Your task to perform on an android device: clear history in the chrome app Image 0: 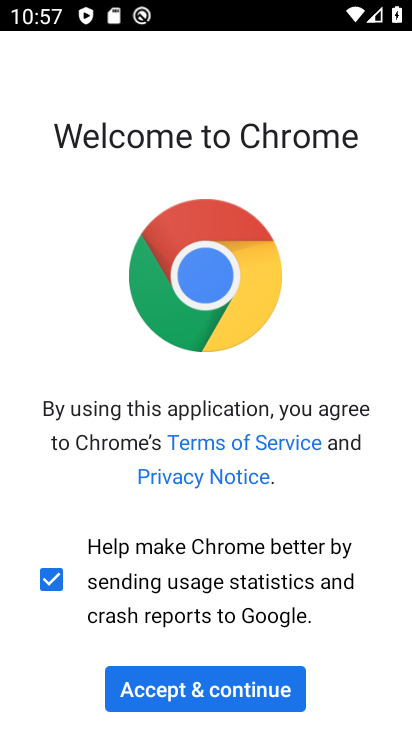
Step 0: click (281, 686)
Your task to perform on an android device: clear history in the chrome app Image 1: 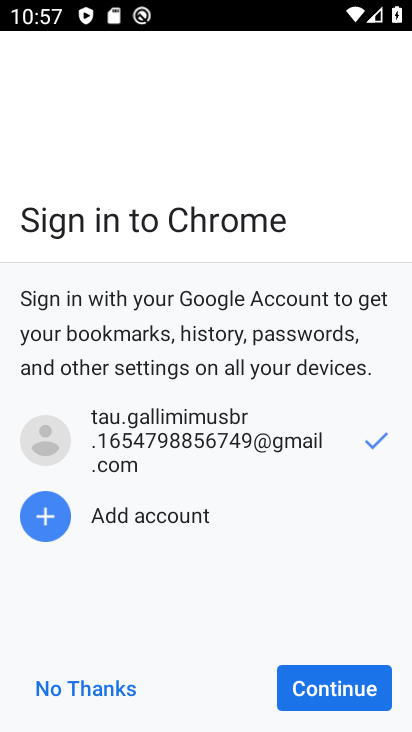
Step 1: click (313, 692)
Your task to perform on an android device: clear history in the chrome app Image 2: 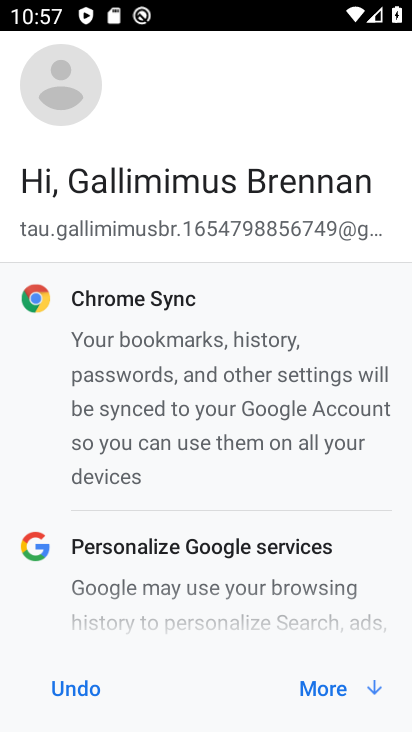
Step 2: click (316, 688)
Your task to perform on an android device: clear history in the chrome app Image 3: 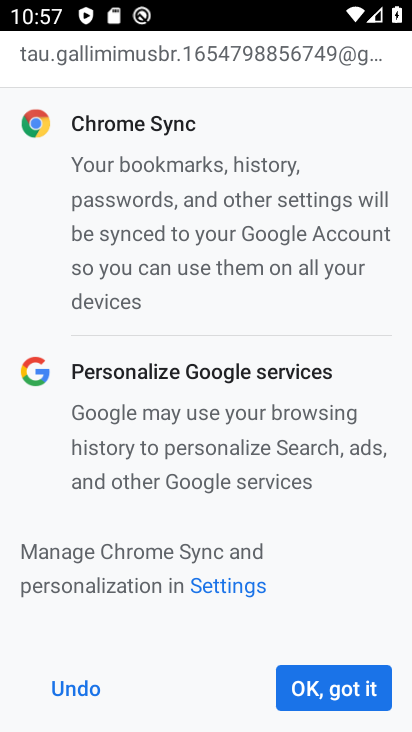
Step 3: click (319, 688)
Your task to perform on an android device: clear history in the chrome app Image 4: 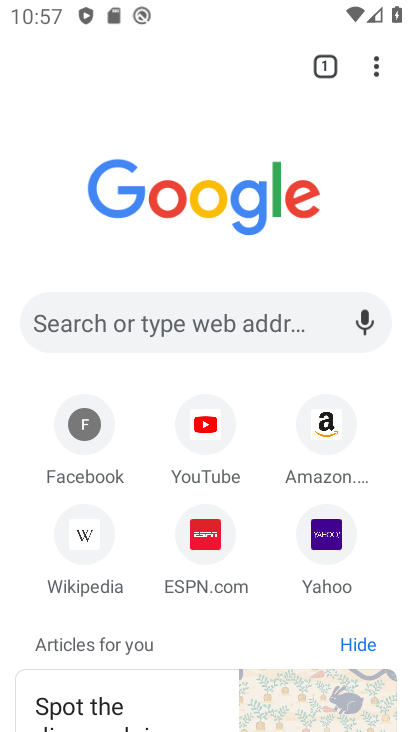
Step 4: click (376, 72)
Your task to perform on an android device: clear history in the chrome app Image 5: 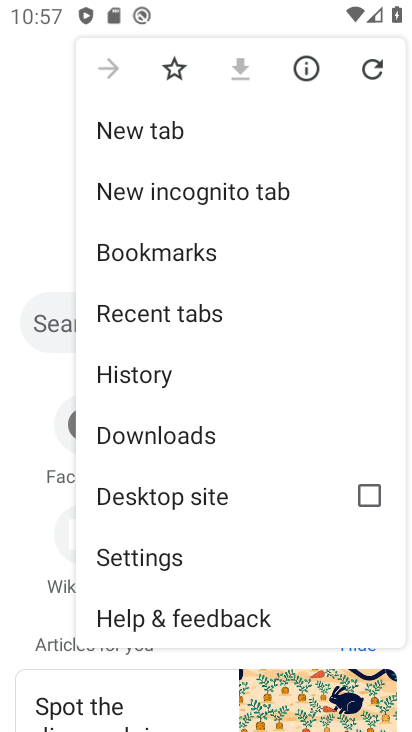
Step 5: click (161, 378)
Your task to perform on an android device: clear history in the chrome app Image 6: 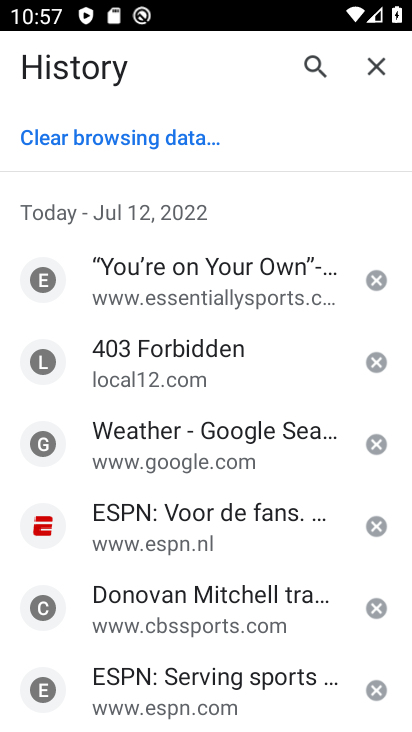
Step 6: click (141, 133)
Your task to perform on an android device: clear history in the chrome app Image 7: 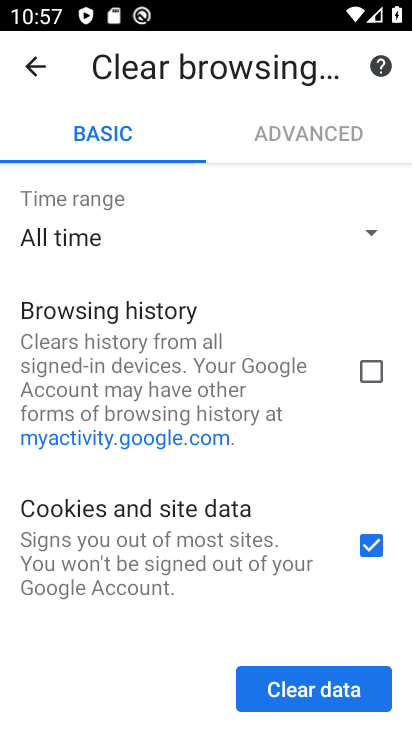
Step 7: click (366, 367)
Your task to perform on an android device: clear history in the chrome app Image 8: 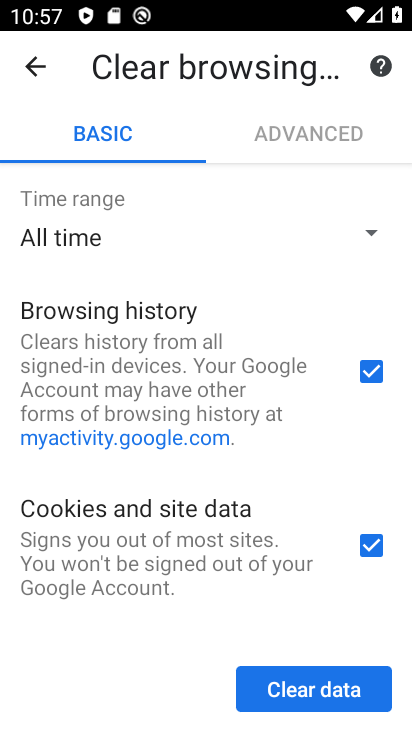
Step 8: drag from (318, 469) to (321, 225)
Your task to perform on an android device: clear history in the chrome app Image 9: 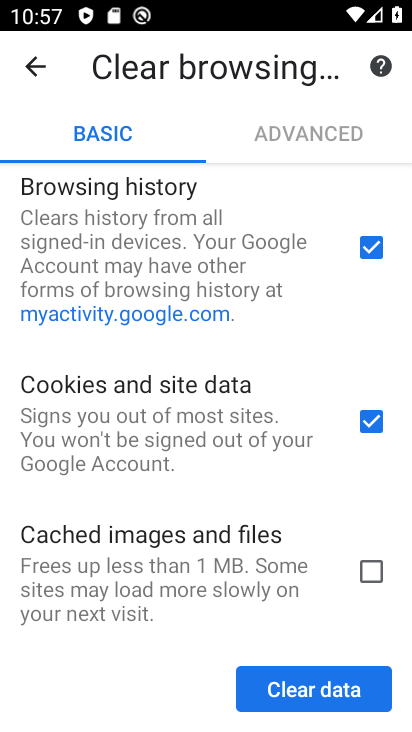
Step 9: click (368, 566)
Your task to perform on an android device: clear history in the chrome app Image 10: 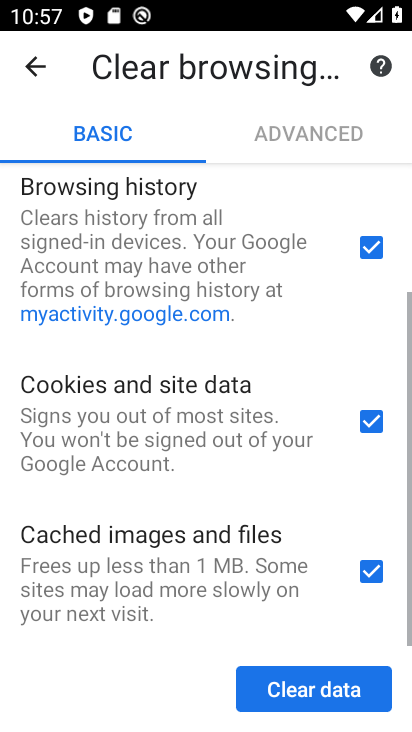
Step 10: click (348, 693)
Your task to perform on an android device: clear history in the chrome app Image 11: 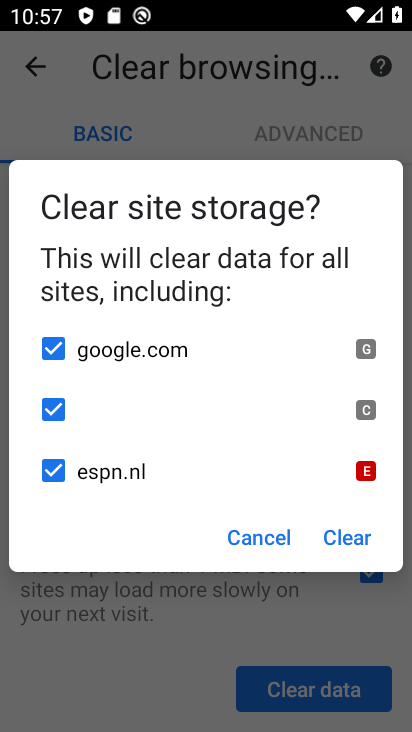
Step 11: click (359, 530)
Your task to perform on an android device: clear history in the chrome app Image 12: 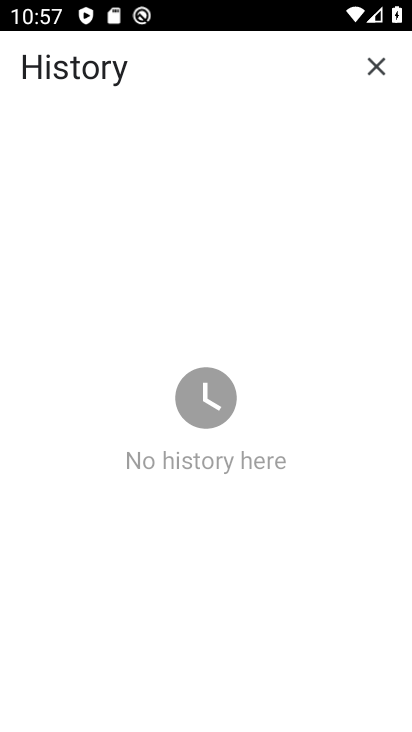
Step 12: task complete